Your task to perform on an android device: turn on sleep mode Image 0: 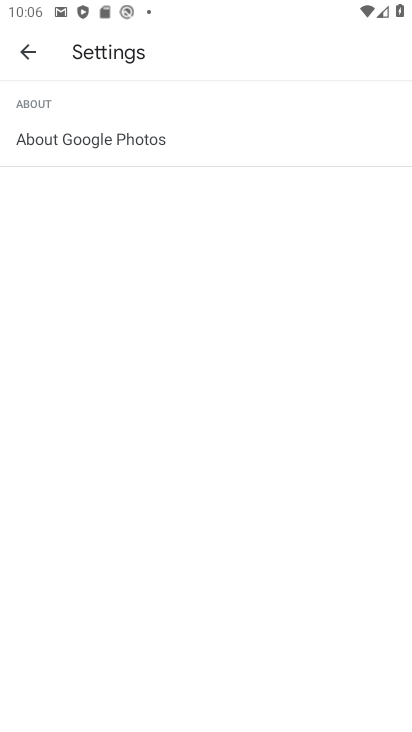
Step 0: press home button
Your task to perform on an android device: turn on sleep mode Image 1: 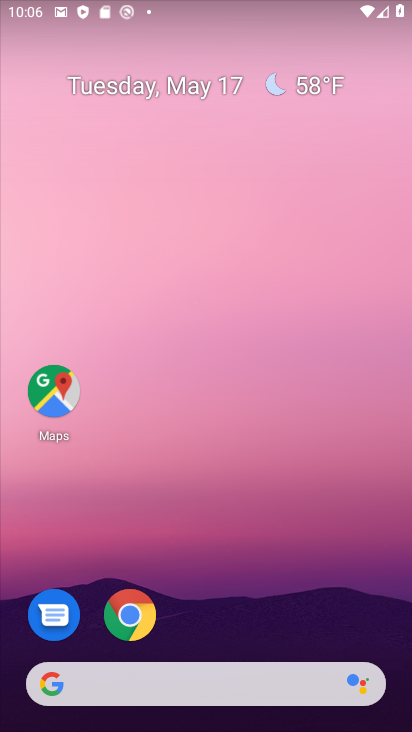
Step 1: drag from (234, 620) to (237, 198)
Your task to perform on an android device: turn on sleep mode Image 2: 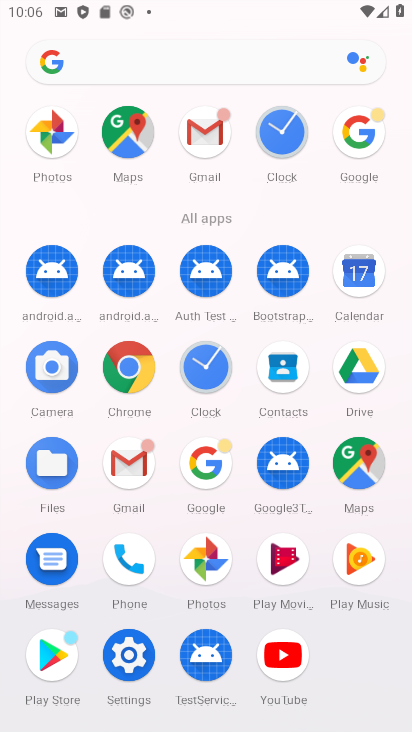
Step 2: click (111, 655)
Your task to perform on an android device: turn on sleep mode Image 3: 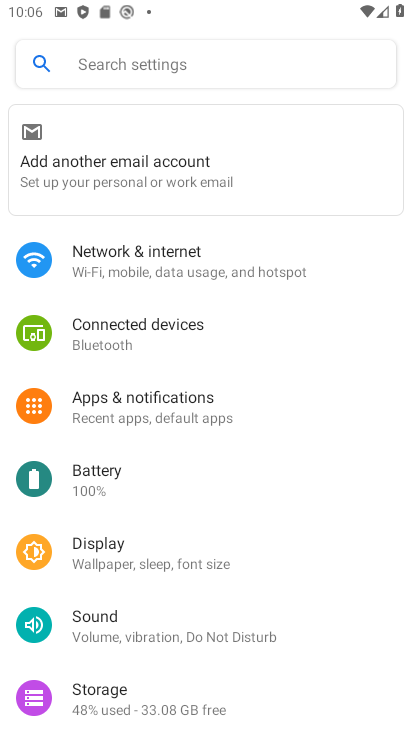
Step 3: click (146, 564)
Your task to perform on an android device: turn on sleep mode Image 4: 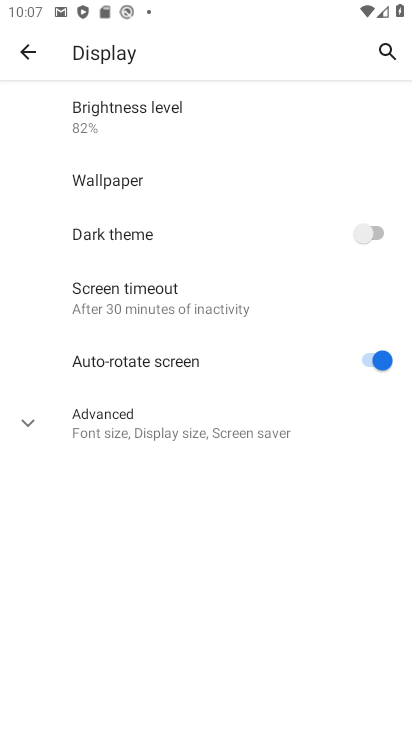
Step 4: click (162, 317)
Your task to perform on an android device: turn on sleep mode Image 5: 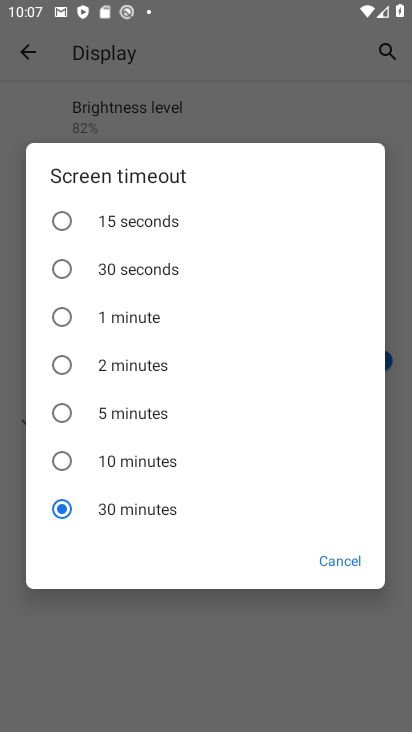
Step 5: click (162, 315)
Your task to perform on an android device: turn on sleep mode Image 6: 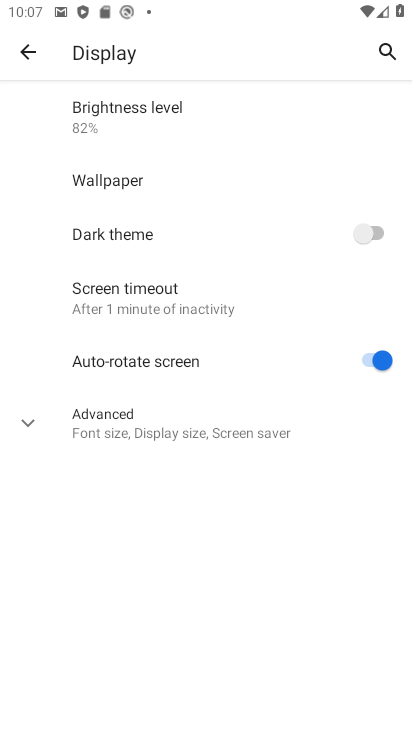
Step 6: task complete